Your task to perform on an android device: open chrome and create a bookmark for the current page Image 0: 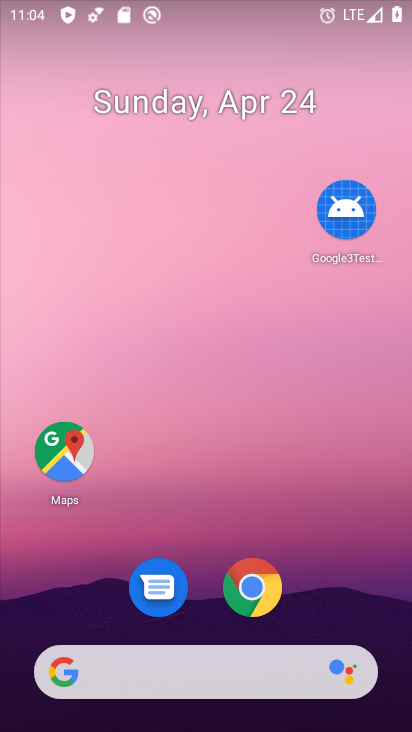
Step 0: drag from (324, 515) to (225, 90)
Your task to perform on an android device: open chrome and create a bookmark for the current page Image 1: 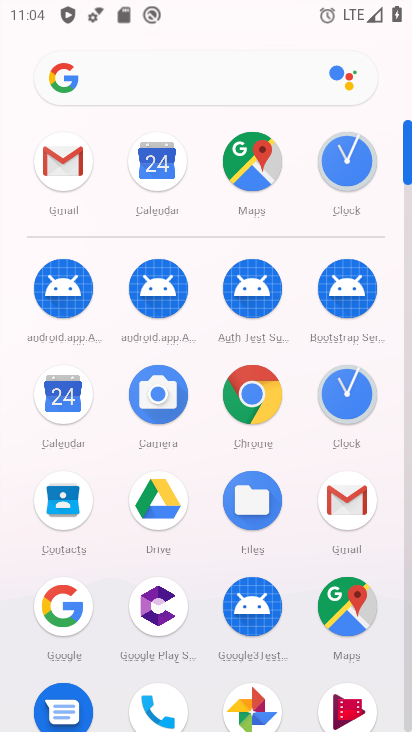
Step 1: click (258, 393)
Your task to perform on an android device: open chrome and create a bookmark for the current page Image 2: 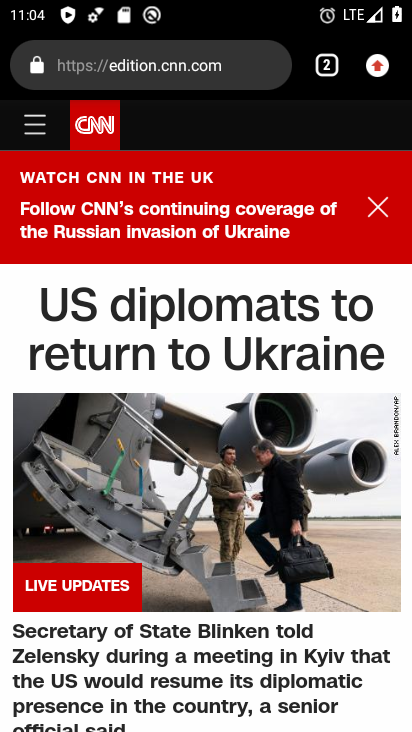
Step 2: task complete